Your task to perform on an android device: add a contact Image 0: 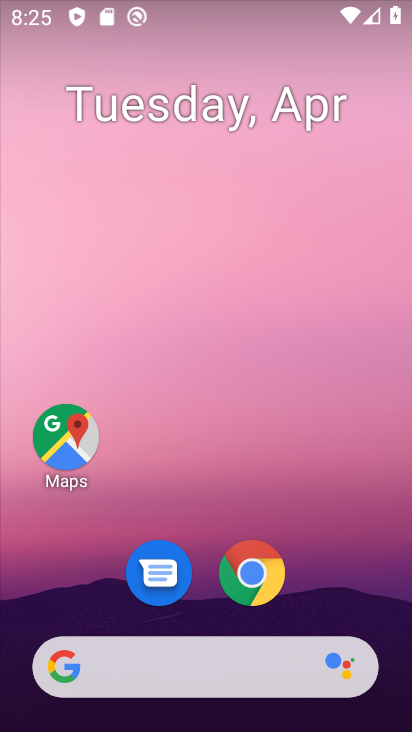
Step 0: drag from (211, 616) to (251, 5)
Your task to perform on an android device: add a contact Image 1: 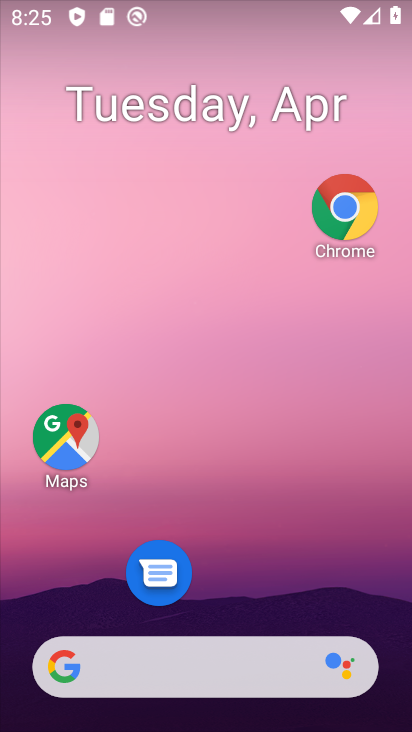
Step 1: drag from (189, 629) to (162, 28)
Your task to perform on an android device: add a contact Image 2: 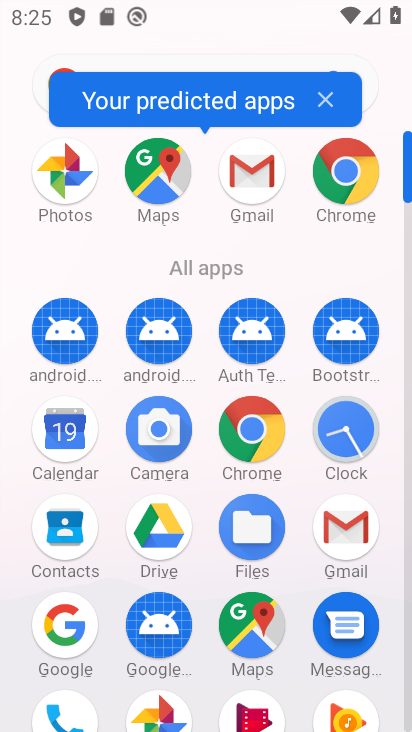
Step 2: click (74, 706)
Your task to perform on an android device: add a contact Image 3: 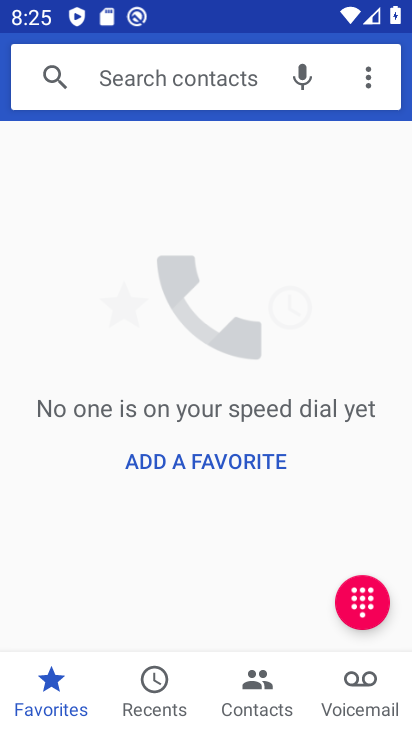
Step 3: click (242, 692)
Your task to perform on an android device: add a contact Image 4: 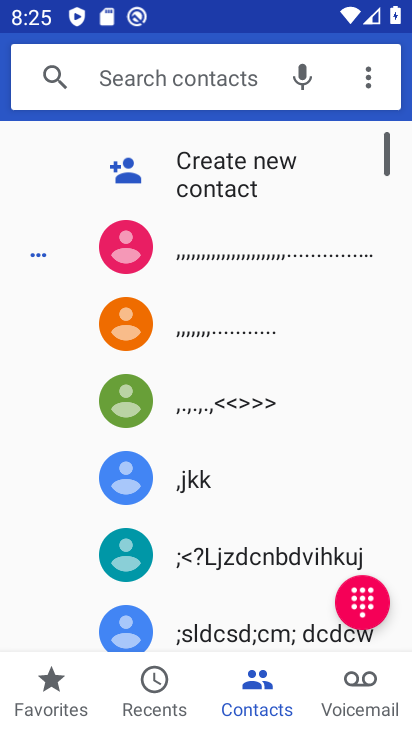
Step 4: click (194, 161)
Your task to perform on an android device: add a contact Image 5: 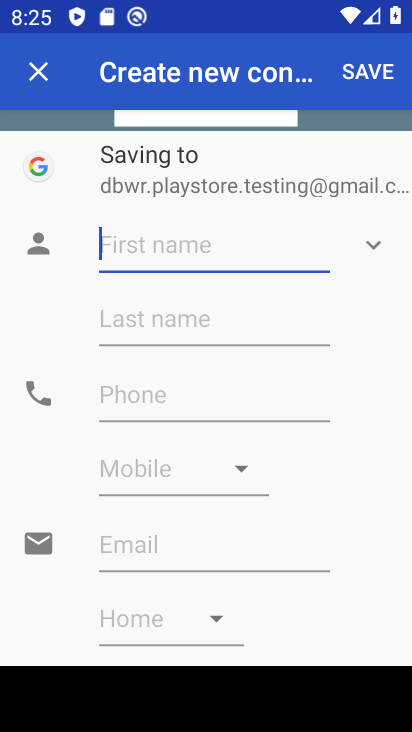
Step 5: type "ss"
Your task to perform on an android device: add a contact Image 6: 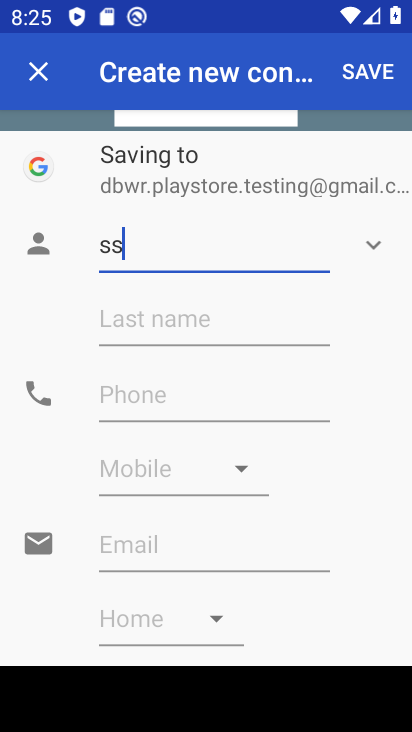
Step 6: type ""
Your task to perform on an android device: add a contact Image 7: 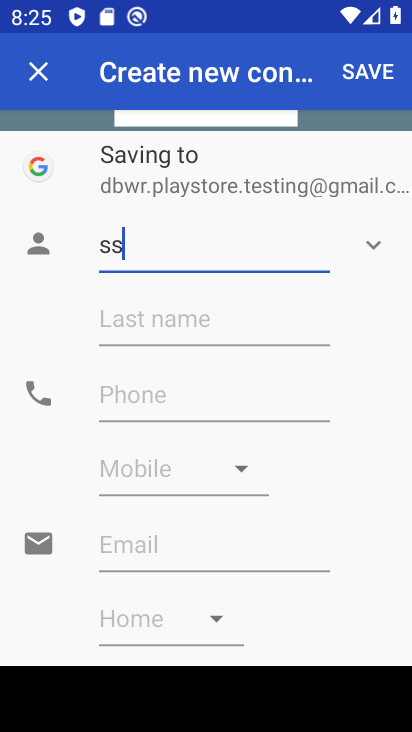
Step 7: click (264, 403)
Your task to perform on an android device: add a contact Image 8: 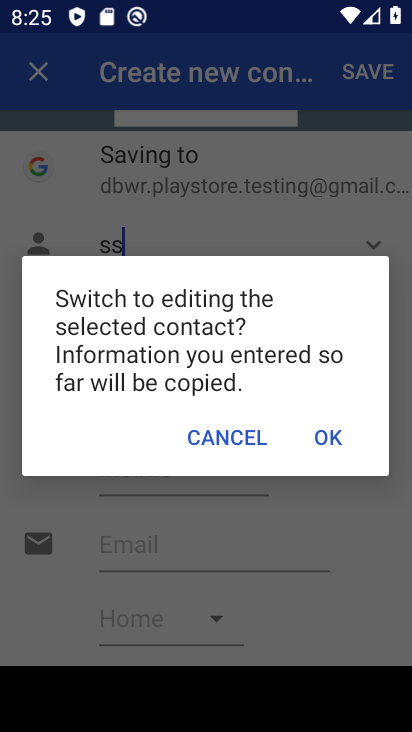
Step 8: click (329, 432)
Your task to perform on an android device: add a contact Image 9: 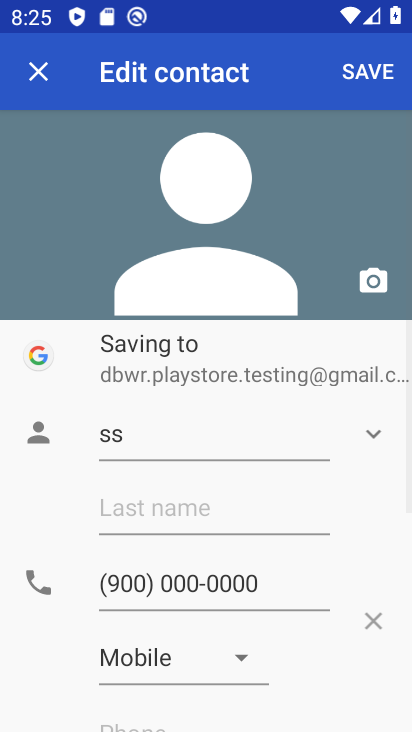
Step 9: click (377, 64)
Your task to perform on an android device: add a contact Image 10: 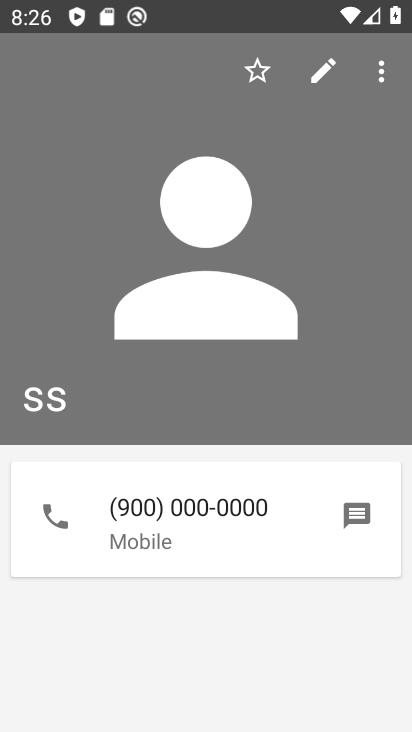
Step 10: task complete